Your task to perform on an android device: change notifications settings Image 0: 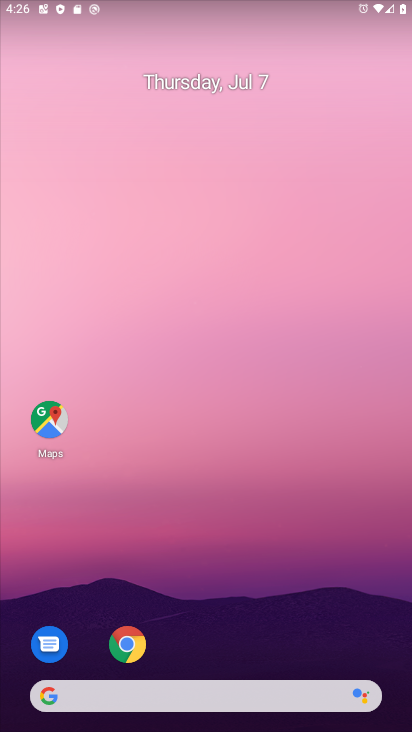
Step 0: drag from (274, 611) to (206, 225)
Your task to perform on an android device: change notifications settings Image 1: 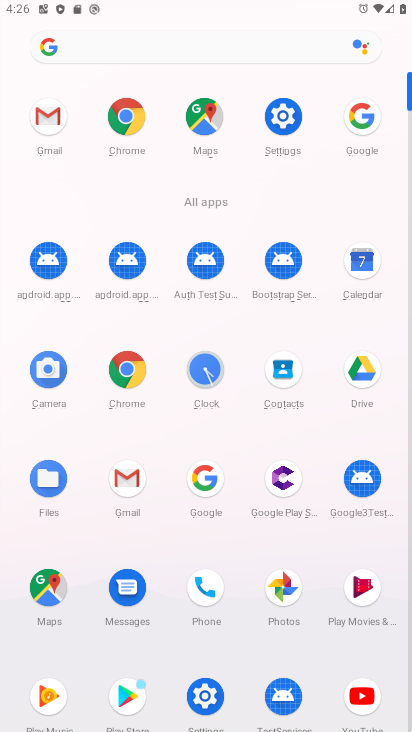
Step 1: click (280, 118)
Your task to perform on an android device: change notifications settings Image 2: 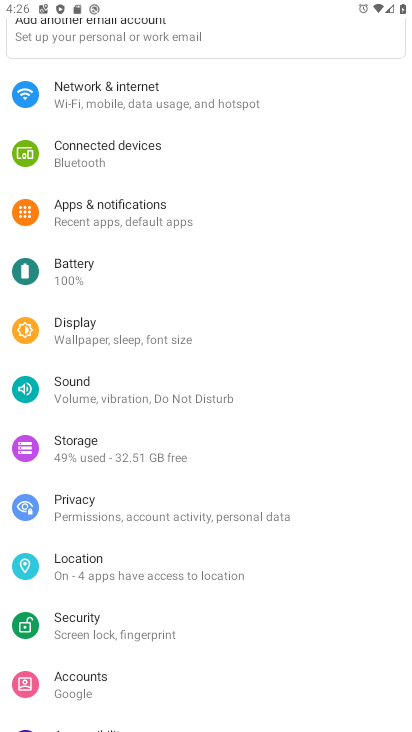
Step 2: click (134, 215)
Your task to perform on an android device: change notifications settings Image 3: 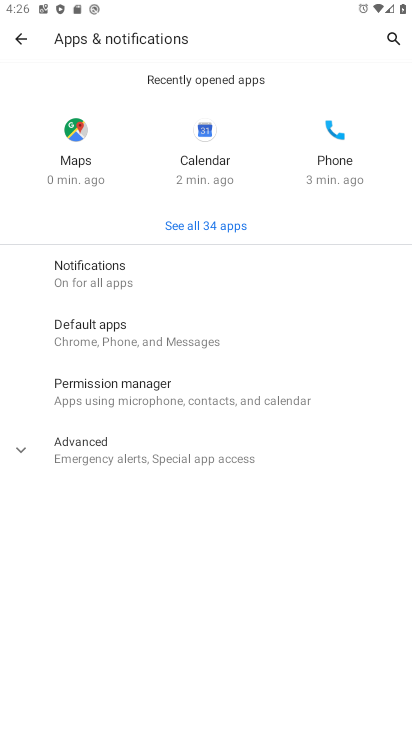
Step 3: click (64, 264)
Your task to perform on an android device: change notifications settings Image 4: 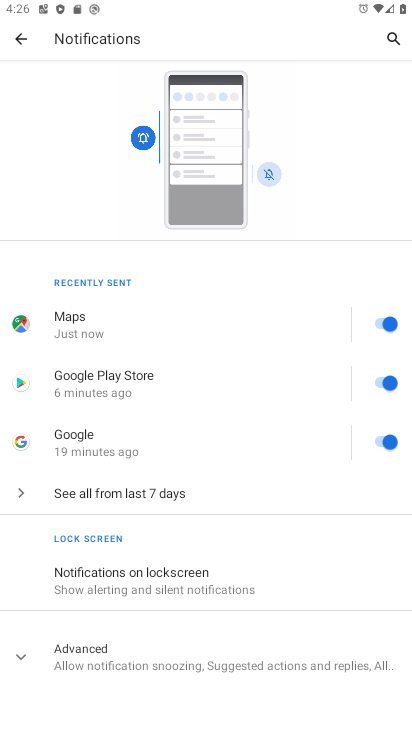
Step 4: click (145, 126)
Your task to perform on an android device: change notifications settings Image 5: 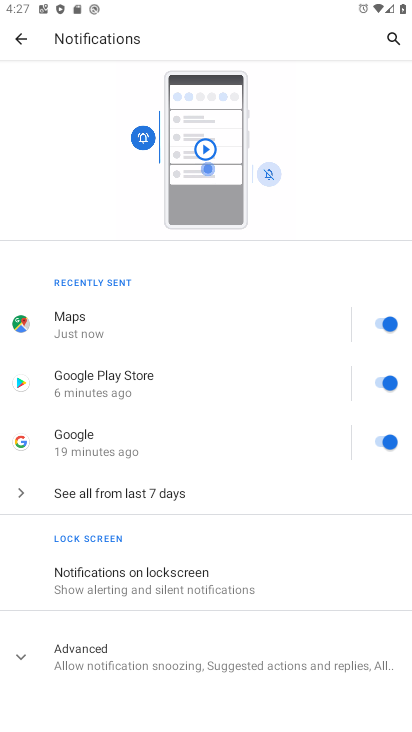
Step 5: click (275, 178)
Your task to perform on an android device: change notifications settings Image 6: 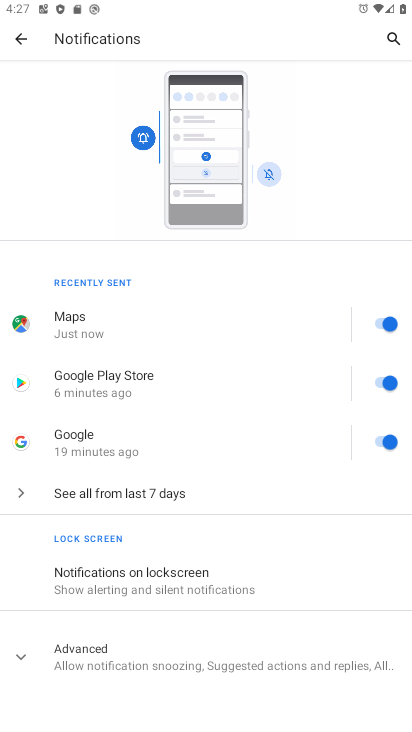
Step 6: click (143, 665)
Your task to perform on an android device: change notifications settings Image 7: 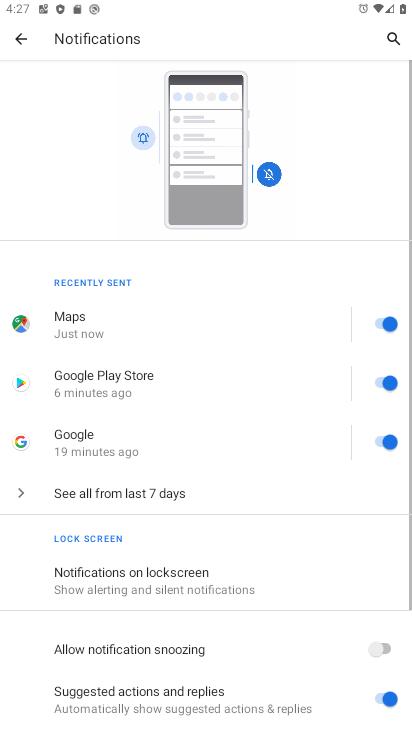
Step 7: task complete